Your task to perform on an android device: Toggle the flashlight Image 0: 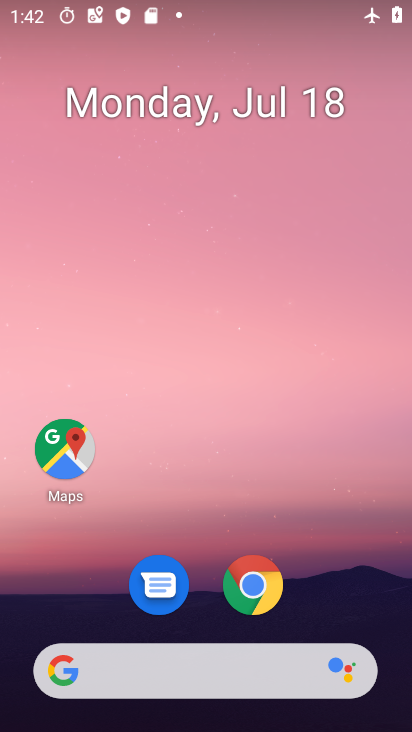
Step 0: drag from (251, 4) to (218, 472)
Your task to perform on an android device: Toggle the flashlight Image 1: 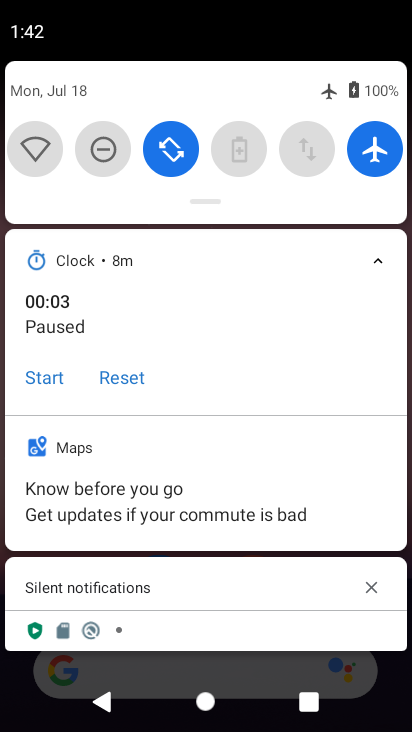
Step 1: task complete